Your task to perform on an android device: turn pop-ups on in chrome Image 0: 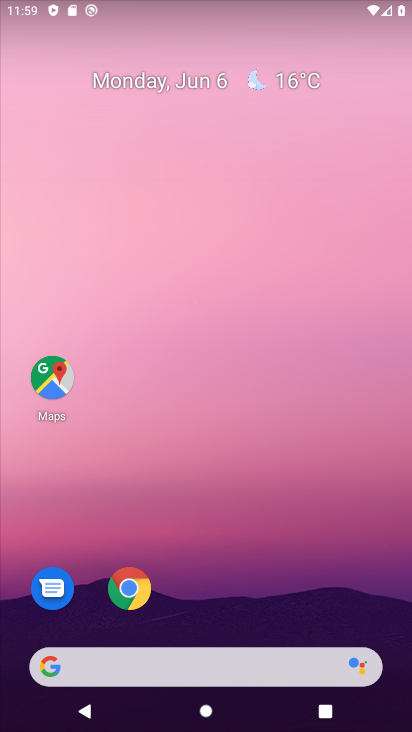
Step 0: click (130, 590)
Your task to perform on an android device: turn pop-ups on in chrome Image 1: 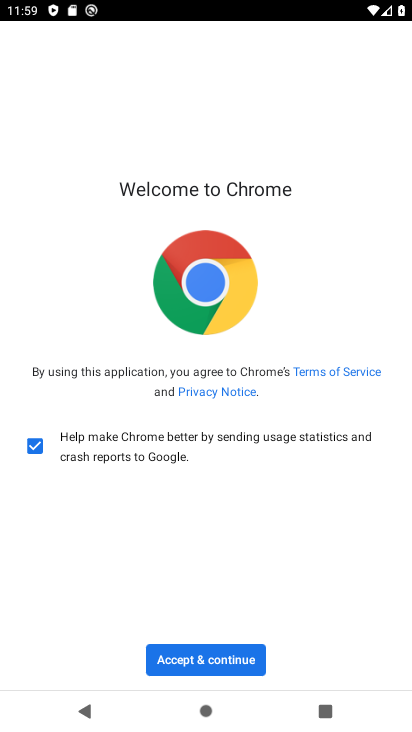
Step 1: click (189, 650)
Your task to perform on an android device: turn pop-ups on in chrome Image 2: 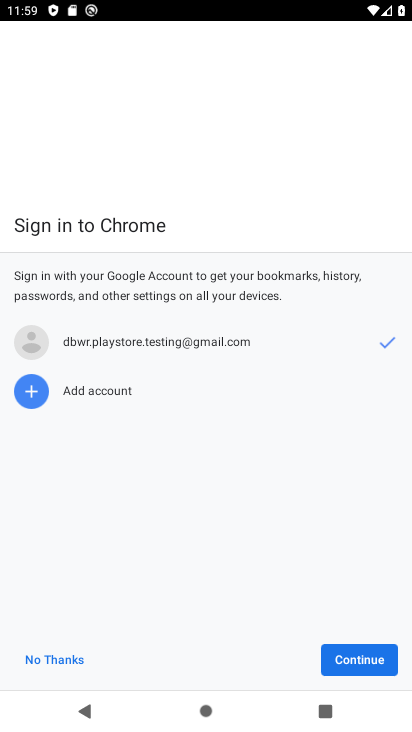
Step 2: click (337, 661)
Your task to perform on an android device: turn pop-ups on in chrome Image 3: 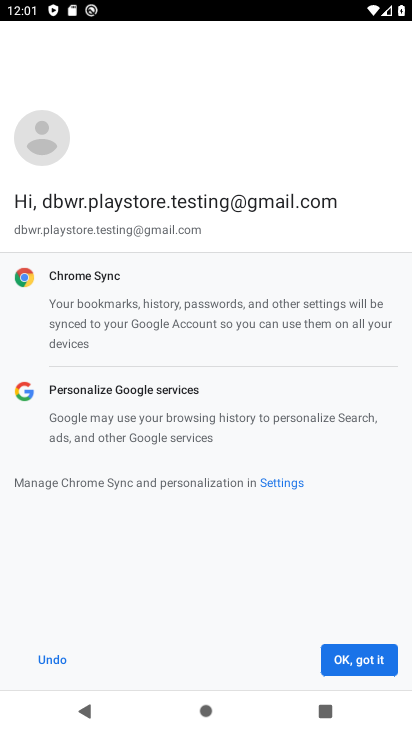
Step 3: task complete